Your task to perform on an android device: turn off location Image 0: 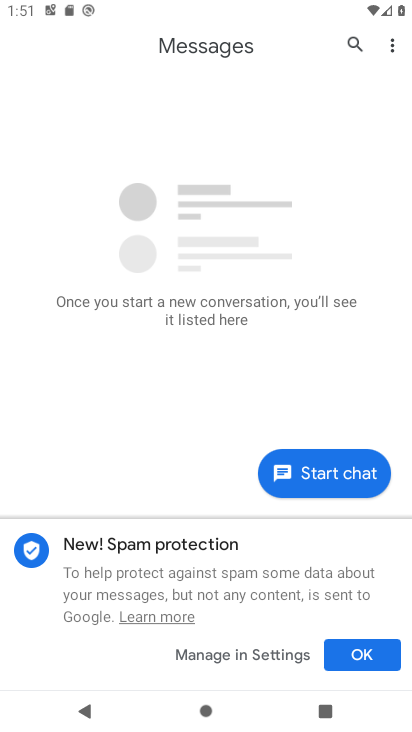
Step 0: press home button
Your task to perform on an android device: turn off location Image 1: 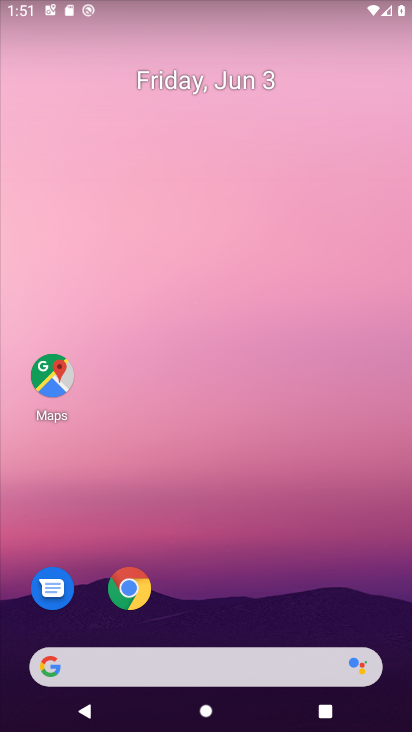
Step 1: drag from (226, 544) to (265, 60)
Your task to perform on an android device: turn off location Image 2: 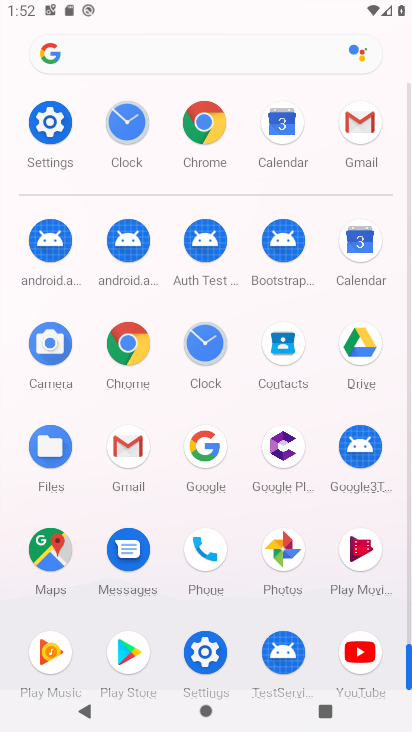
Step 2: click (49, 167)
Your task to perform on an android device: turn off location Image 3: 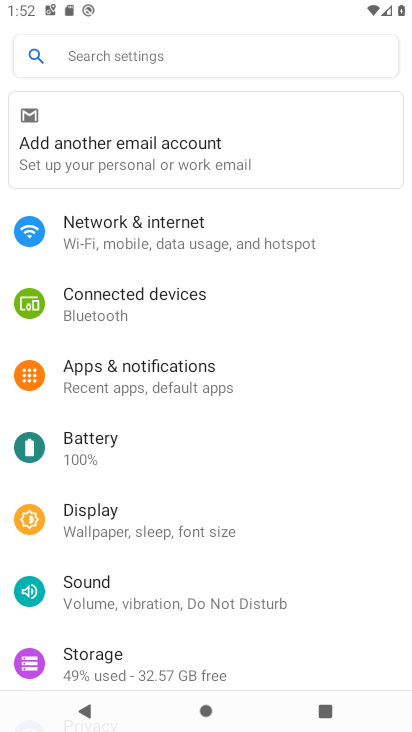
Step 3: drag from (200, 481) to (271, 87)
Your task to perform on an android device: turn off location Image 4: 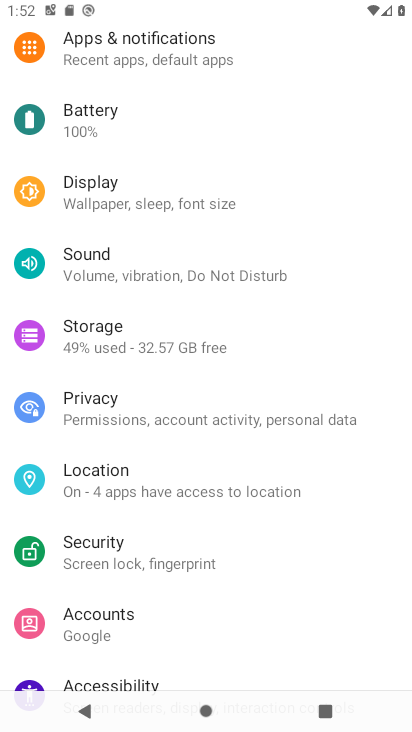
Step 4: click (181, 488)
Your task to perform on an android device: turn off location Image 5: 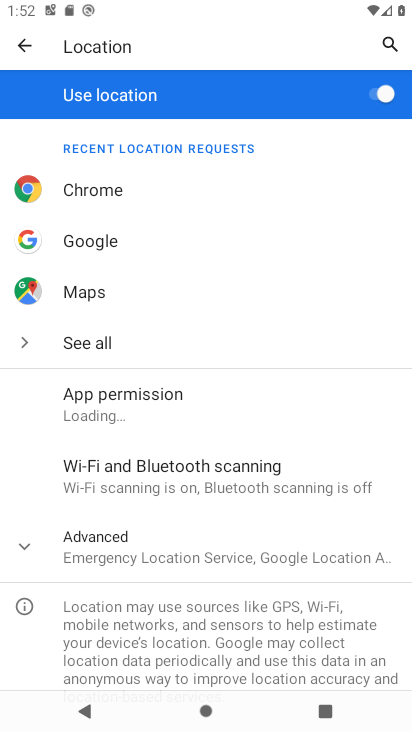
Step 5: click (376, 97)
Your task to perform on an android device: turn off location Image 6: 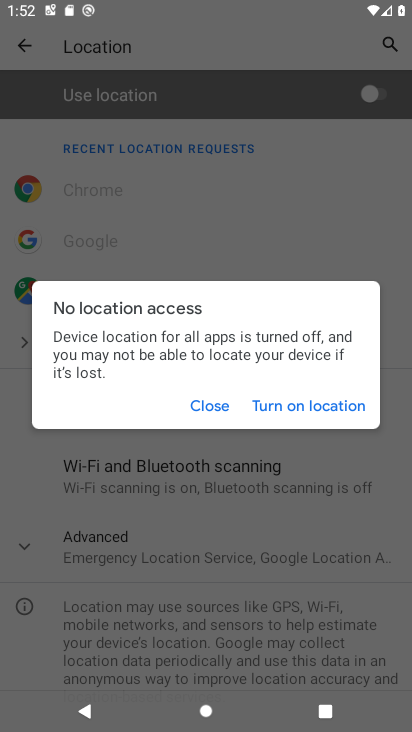
Step 6: task complete